Your task to perform on an android device: Open Google Chrome and open the bookmarks view Image 0: 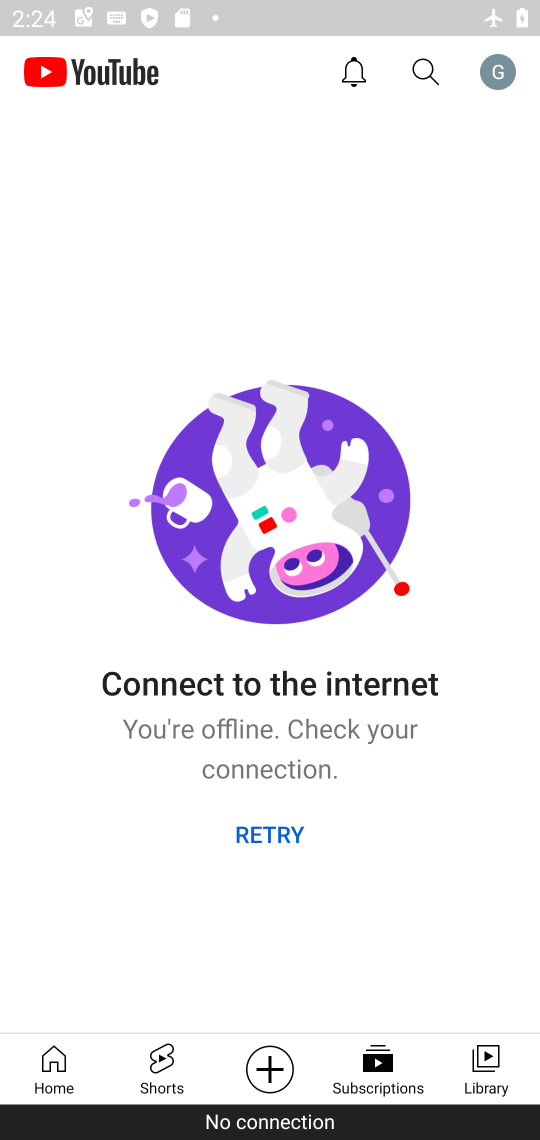
Step 0: press home button
Your task to perform on an android device: Open Google Chrome and open the bookmarks view Image 1: 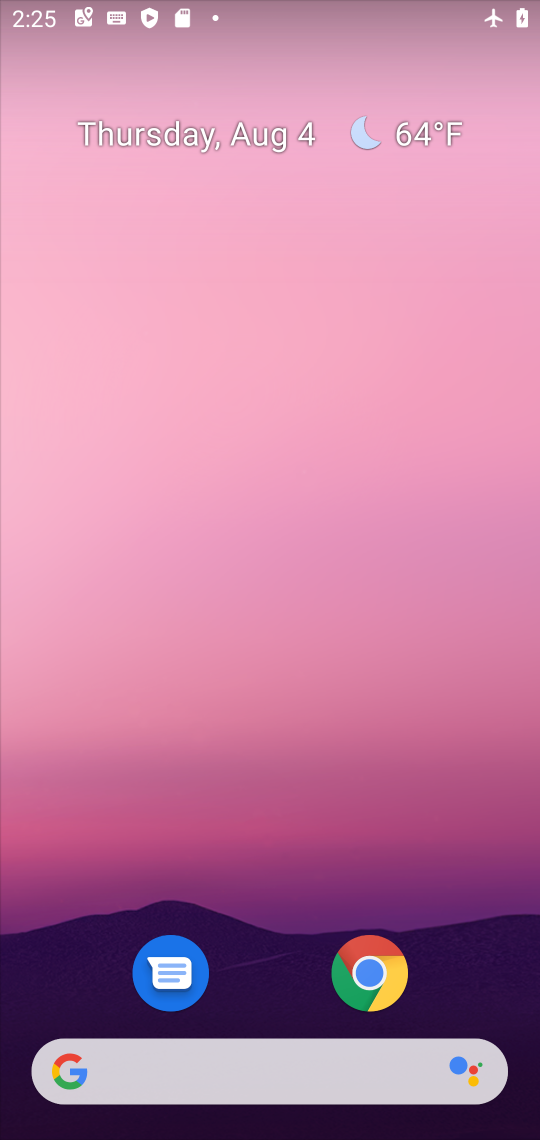
Step 1: click (372, 960)
Your task to perform on an android device: Open Google Chrome and open the bookmarks view Image 2: 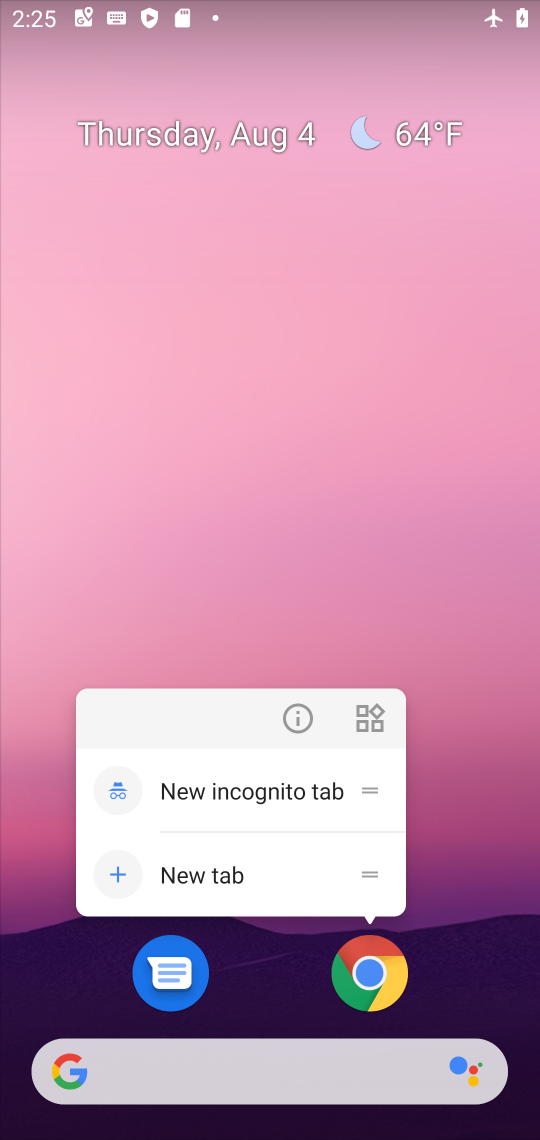
Step 2: drag from (256, 1019) to (264, 111)
Your task to perform on an android device: Open Google Chrome and open the bookmarks view Image 3: 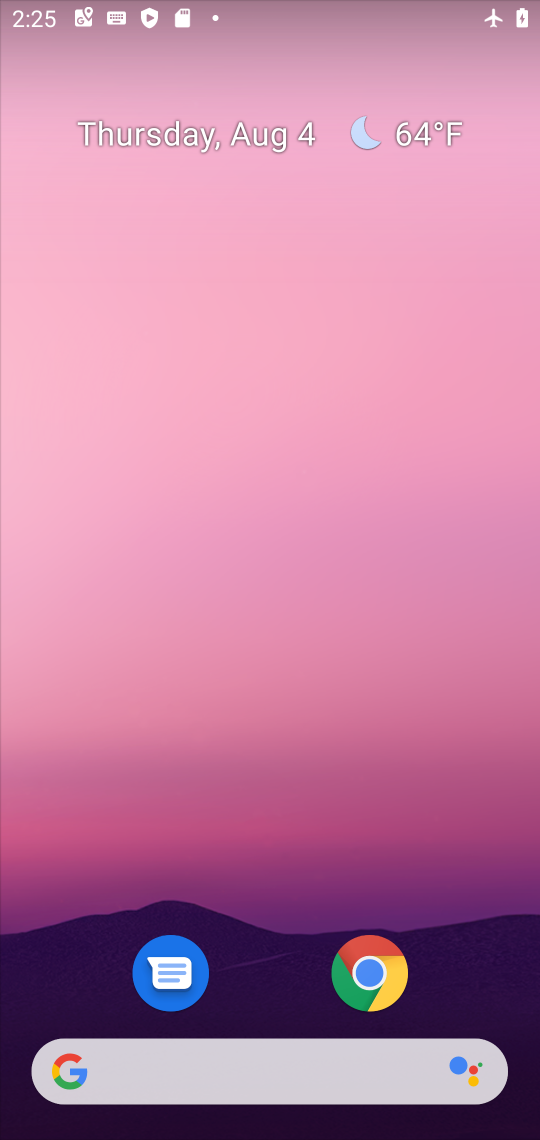
Step 3: click (370, 987)
Your task to perform on an android device: Open Google Chrome and open the bookmarks view Image 4: 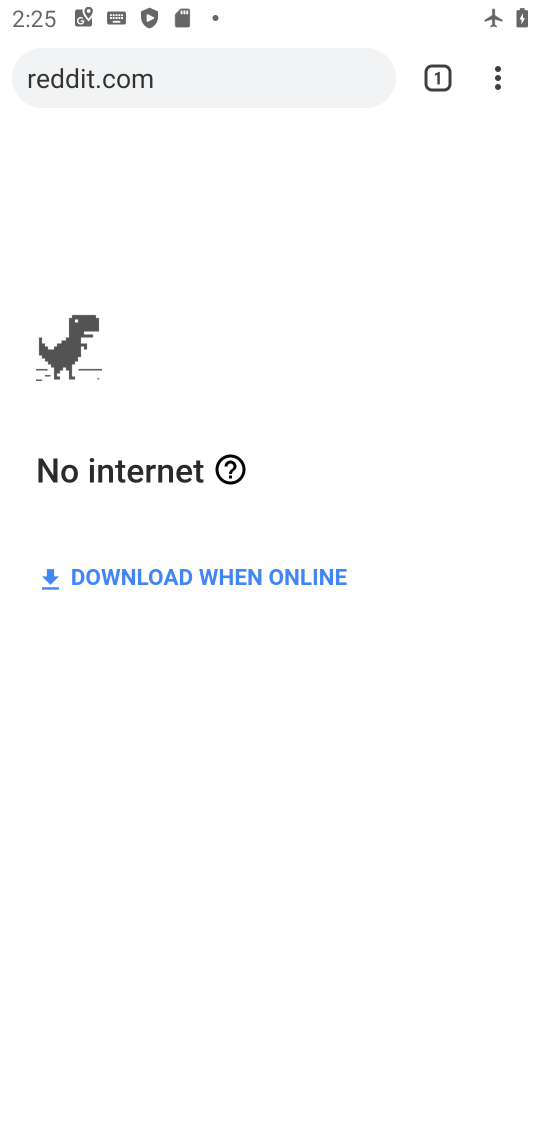
Step 4: task complete